Your task to perform on an android device: Do I have any events today? Image 0: 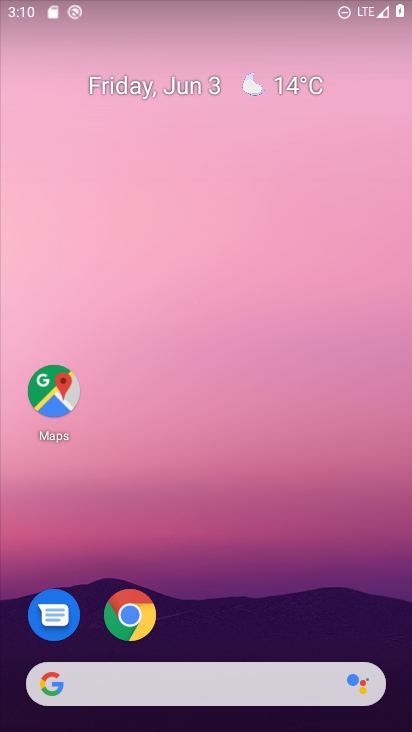
Step 0: drag from (209, 645) to (276, 80)
Your task to perform on an android device: Do I have any events today? Image 1: 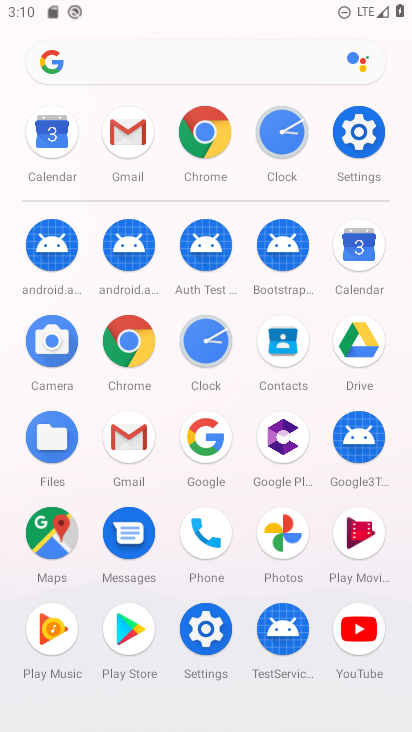
Step 1: click (350, 253)
Your task to perform on an android device: Do I have any events today? Image 2: 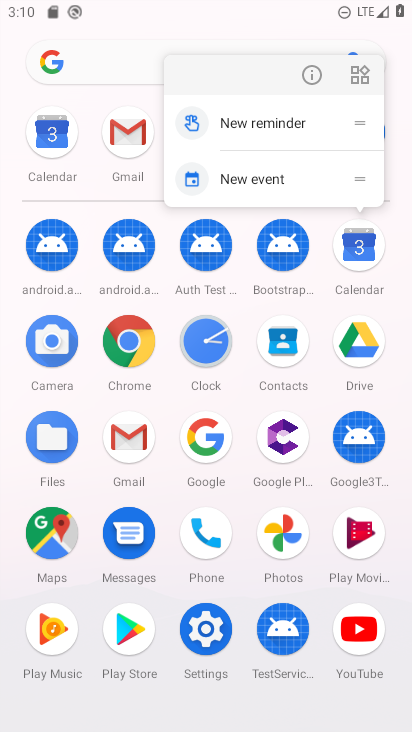
Step 2: click (303, 76)
Your task to perform on an android device: Do I have any events today? Image 3: 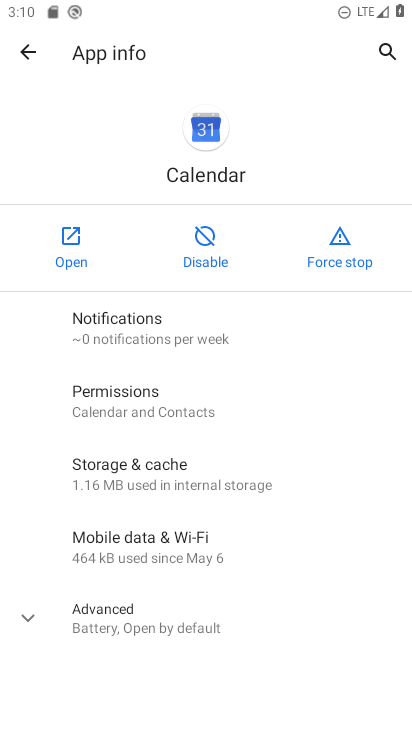
Step 3: click (71, 257)
Your task to perform on an android device: Do I have any events today? Image 4: 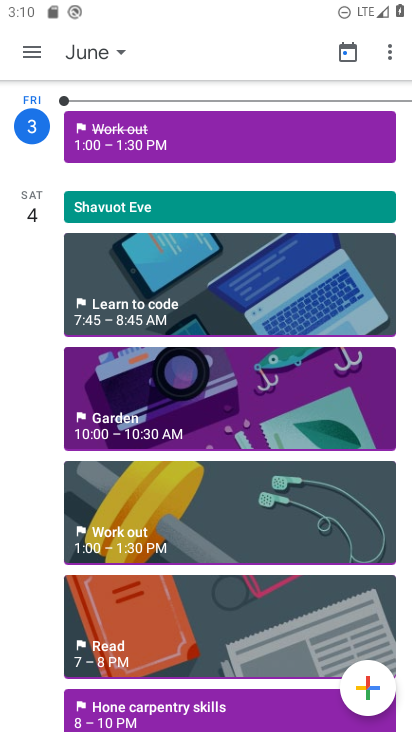
Step 4: click (229, 183)
Your task to perform on an android device: Do I have any events today? Image 5: 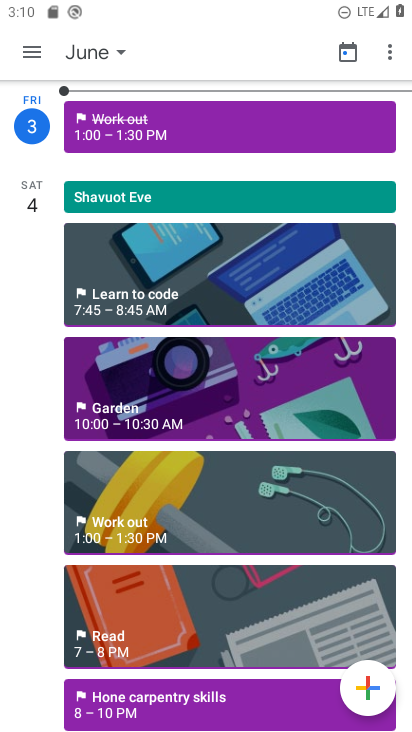
Step 5: click (113, 58)
Your task to perform on an android device: Do I have any events today? Image 6: 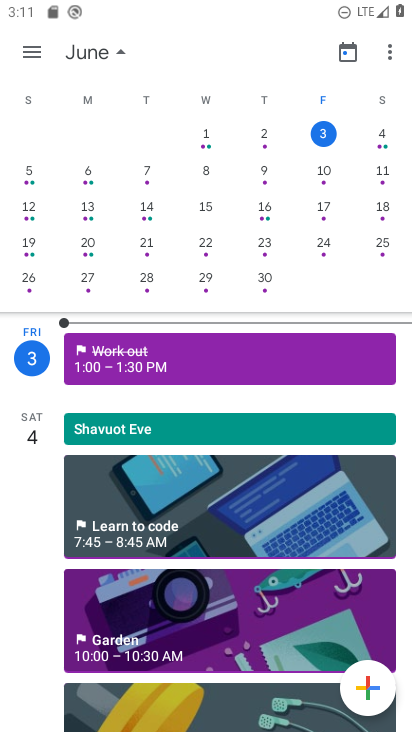
Step 6: click (321, 136)
Your task to perform on an android device: Do I have any events today? Image 7: 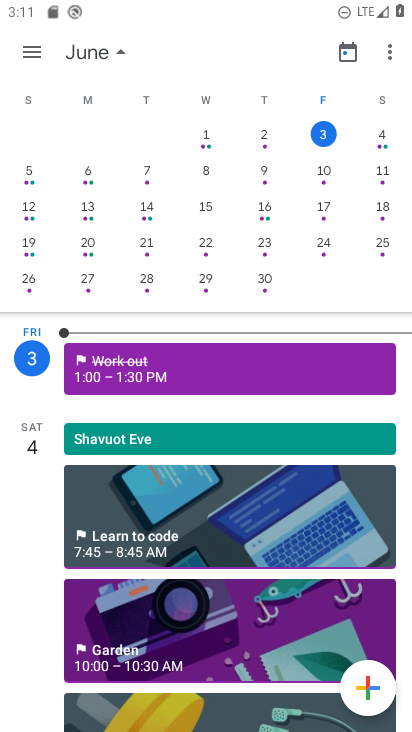
Step 7: task complete